Your task to perform on an android device: Open Maps and search for coffee Image 0: 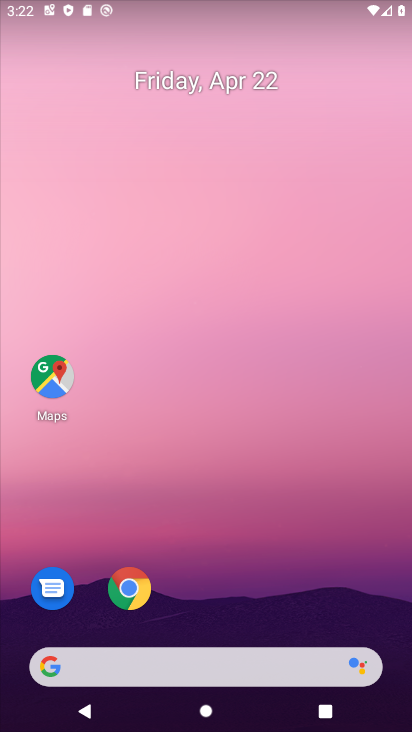
Step 0: click (62, 395)
Your task to perform on an android device: Open Maps and search for coffee Image 1: 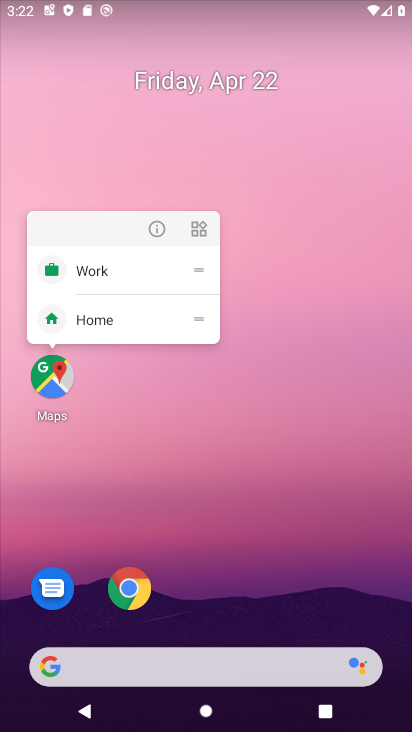
Step 1: click (62, 380)
Your task to perform on an android device: Open Maps and search for coffee Image 2: 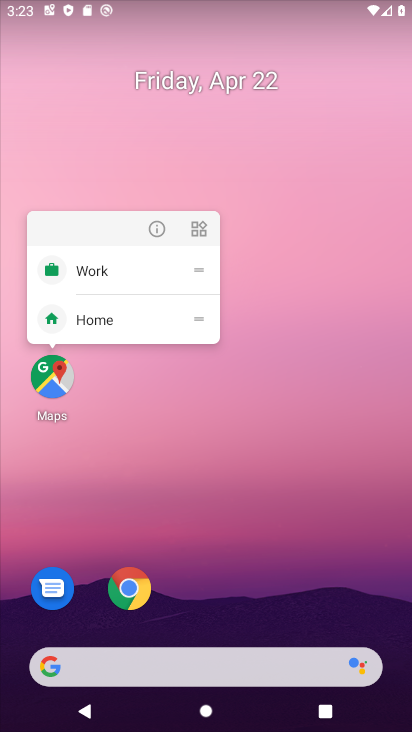
Step 2: click (62, 381)
Your task to perform on an android device: Open Maps and search for coffee Image 3: 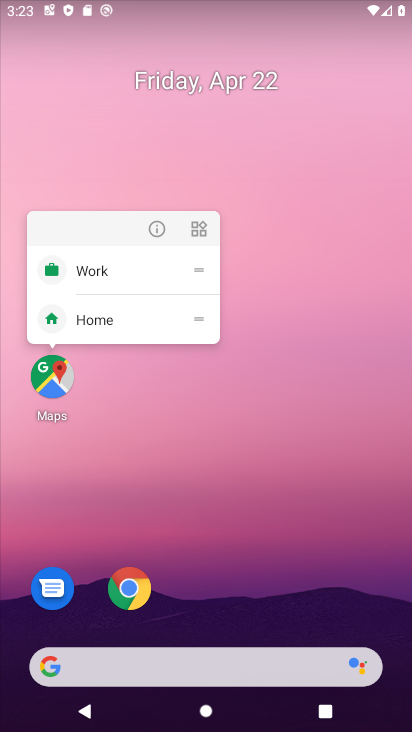
Step 3: click (47, 375)
Your task to perform on an android device: Open Maps and search for coffee Image 4: 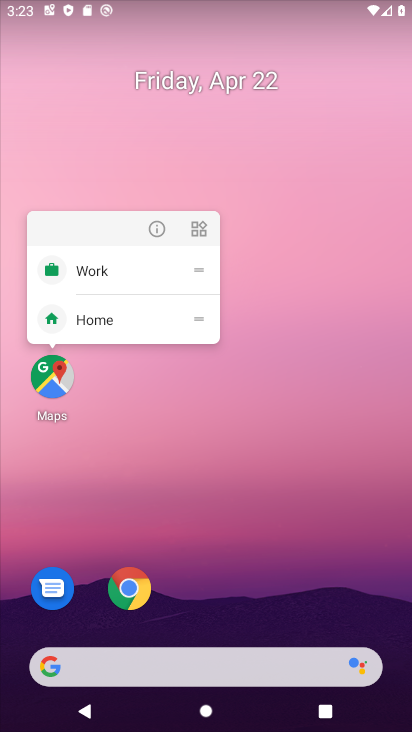
Step 4: click (54, 380)
Your task to perform on an android device: Open Maps and search for coffee Image 5: 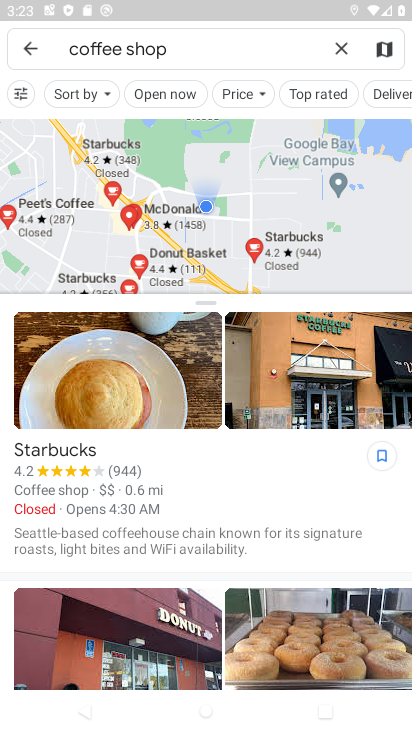
Step 5: click (339, 51)
Your task to perform on an android device: Open Maps and search for coffee Image 6: 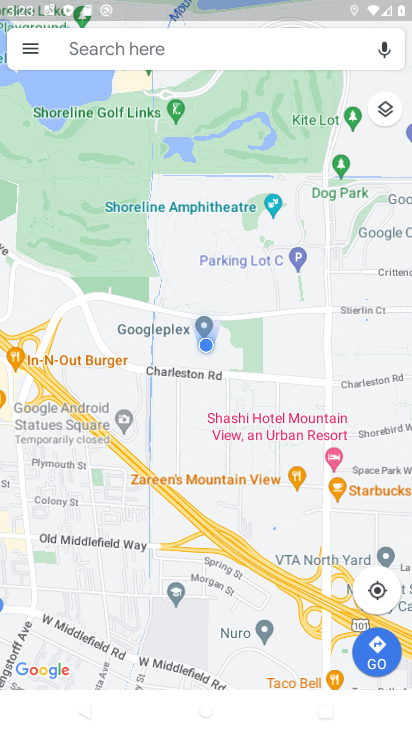
Step 6: click (208, 46)
Your task to perform on an android device: Open Maps and search for coffee Image 7: 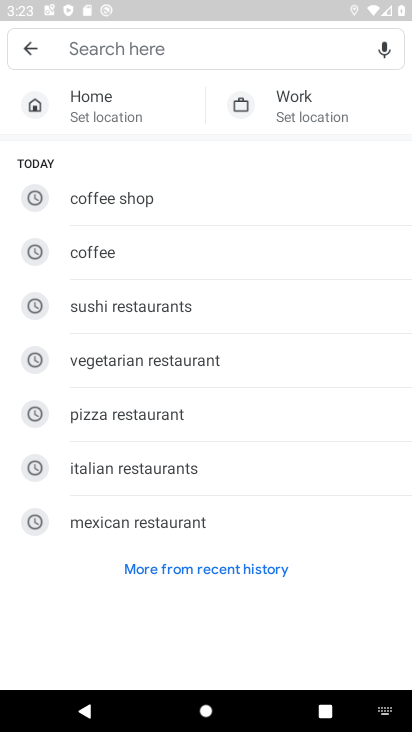
Step 7: type "Coffee"
Your task to perform on an android device: Open Maps and search for coffee Image 8: 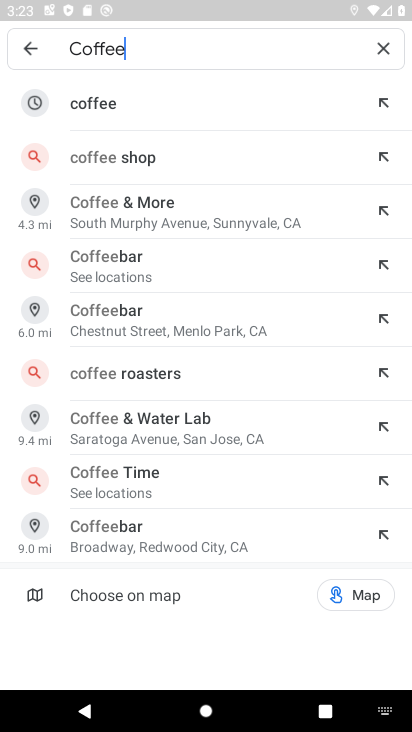
Step 8: click (159, 109)
Your task to perform on an android device: Open Maps and search for coffee Image 9: 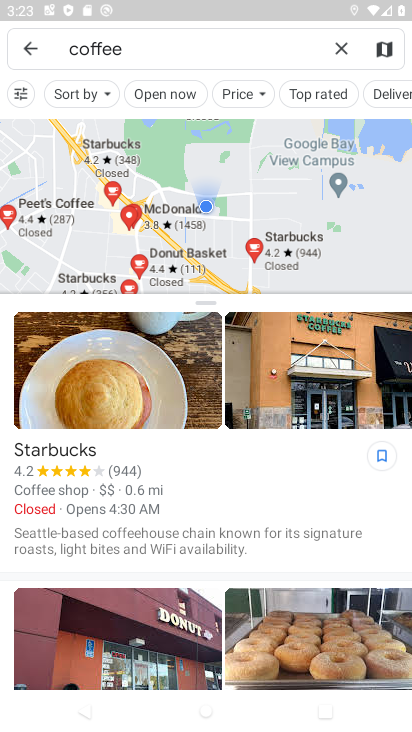
Step 9: task complete